Your task to perform on an android device: Open Yahoo.com Image 0: 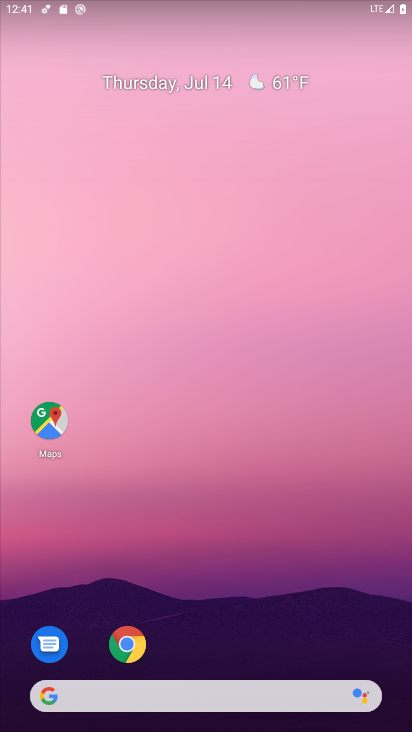
Step 0: click (127, 645)
Your task to perform on an android device: Open Yahoo.com Image 1: 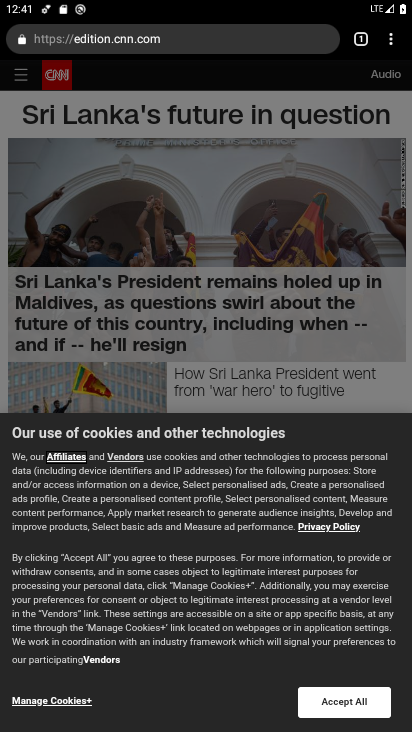
Step 1: click (199, 43)
Your task to perform on an android device: Open Yahoo.com Image 2: 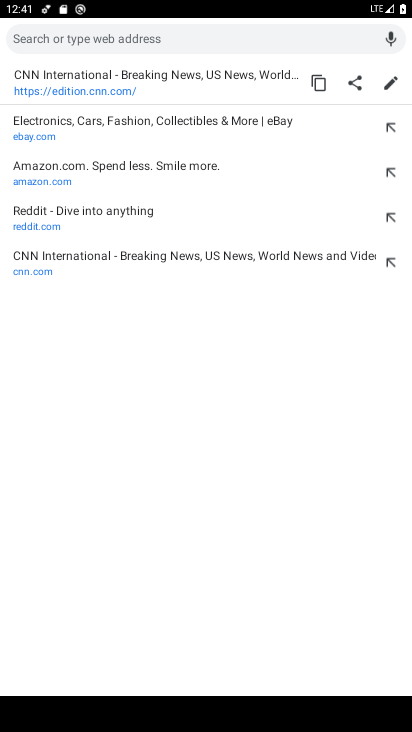
Step 2: type "yahoo.com"
Your task to perform on an android device: Open Yahoo.com Image 3: 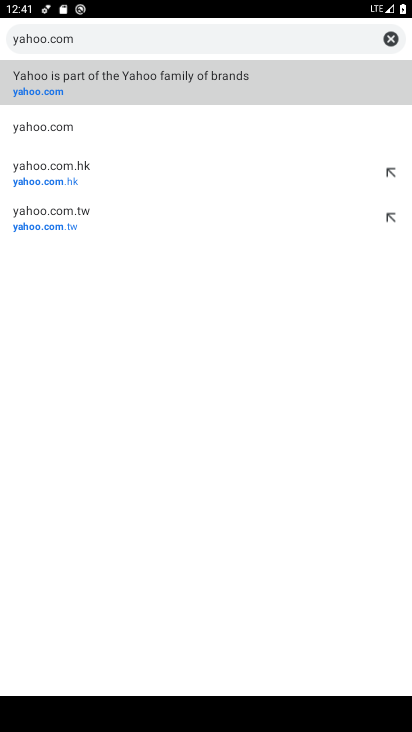
Step 3: click (285, 93)
Your task to perform on an android device: Open Yahoo.com Image 4: 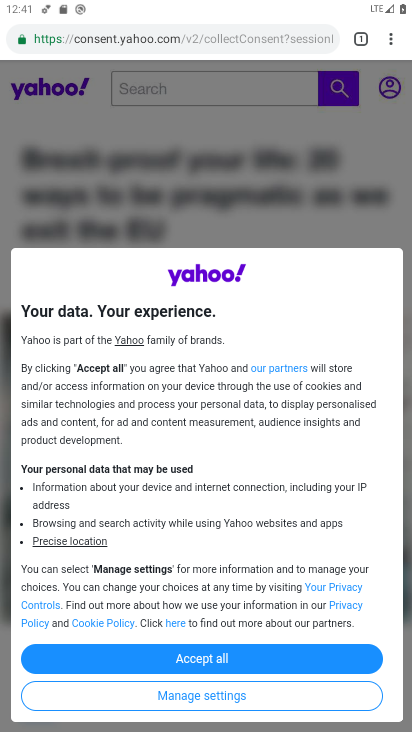
Step 4: task complete